Your task to perform on an android device: Open my contact list Image 0: 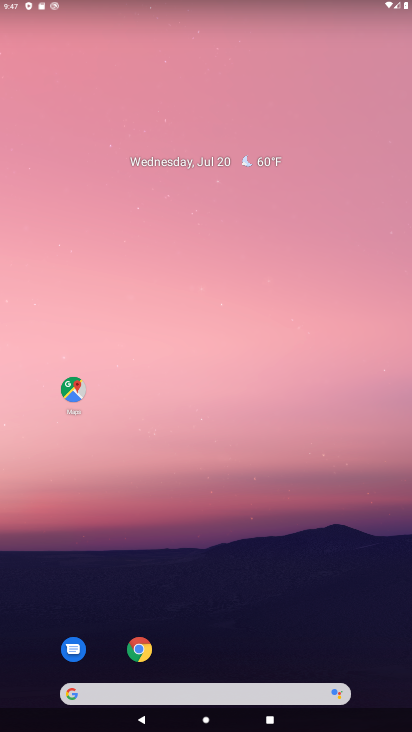
Step 0: drag from (356, 604) to (285, 165)
Your task to perform on an android device: Open my contact list Image 1: 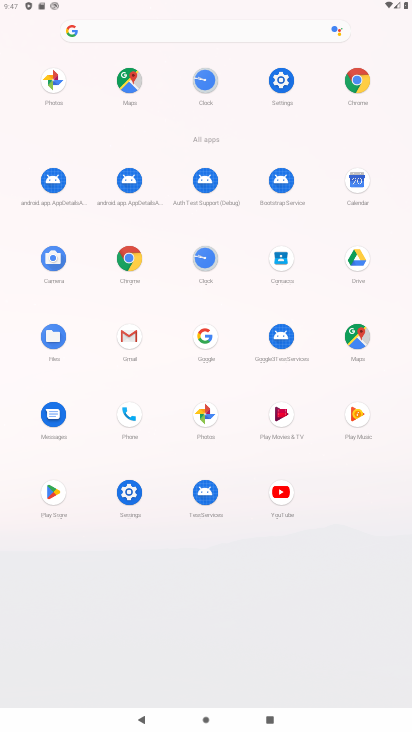
Step 1: click (280, 265)
Your task to perform on an android device: Open my contact list Image 2: 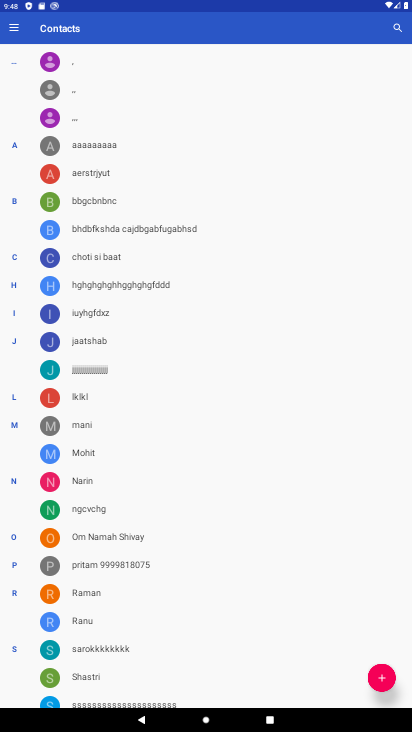
Step 2: task complete